Your task to perform on an android device: Open Chrome and go to settings Image 0: 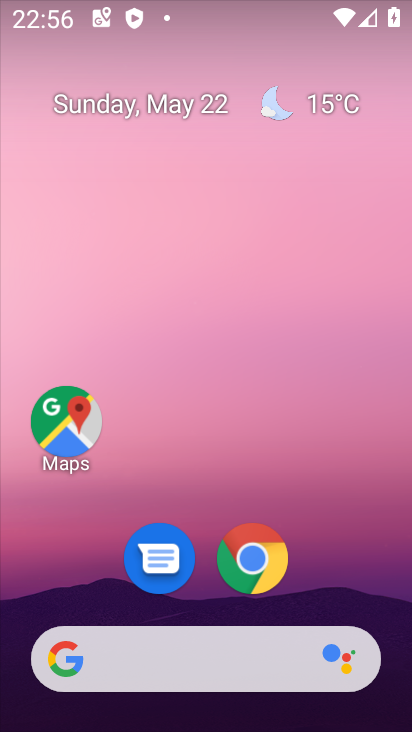
Step 0: click (248, 563)
Your task to perform on an android device: Open Chrome and go to settings Image 1: 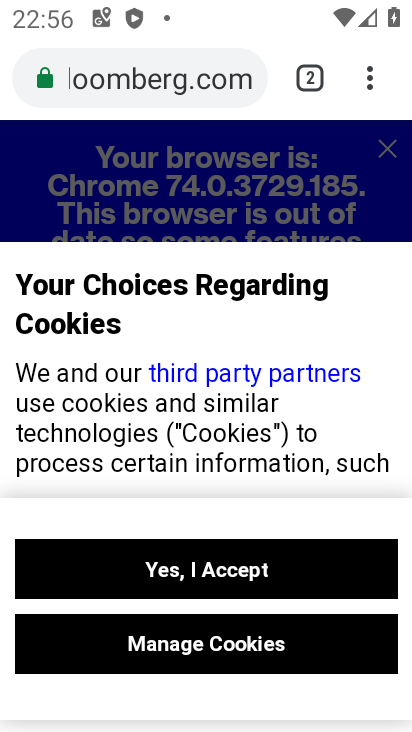
Step 1: click (372, 77)
Your task to perform on an android device: Open Chrome and go to settings Image 2: 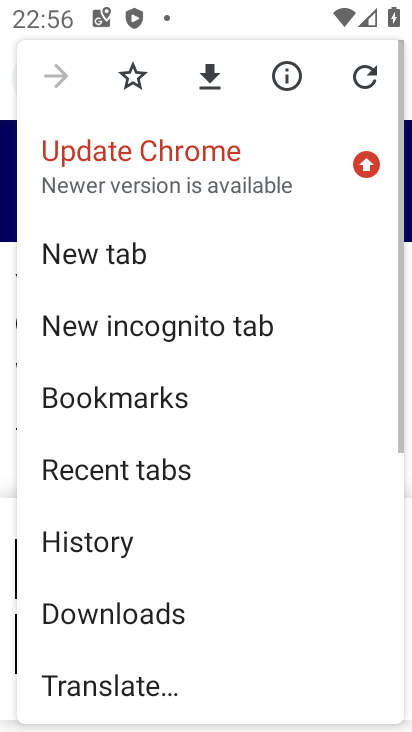
Step 2: drag from (206, 524) to (229, 172)
Your task to perform on an android device: Open Chrome and go to settings Image 3: 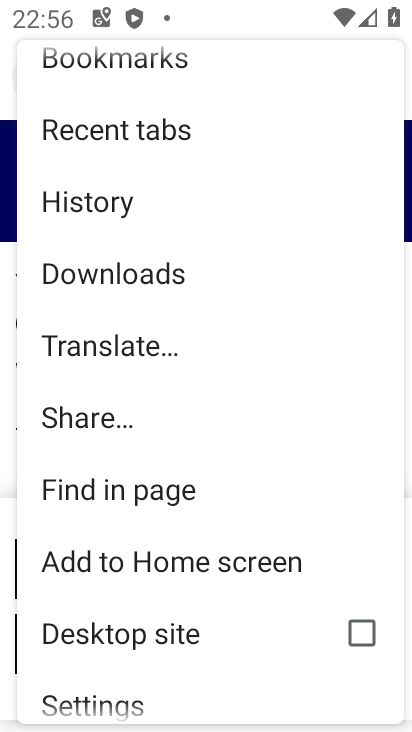
Step 3: drag from (189, 465) to (208, 176)
Your task to perform on an android device: Open Chrome and go to settings Image 4: 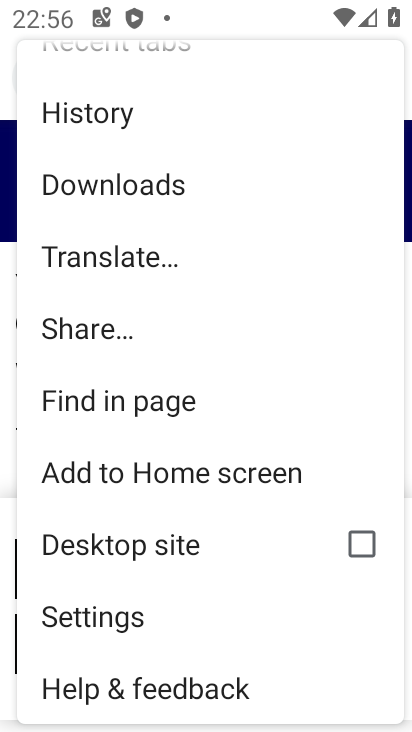
Step 4: click (102, 625)
Your task to perform on an android device: Open Chrome and go to settings Image 5: 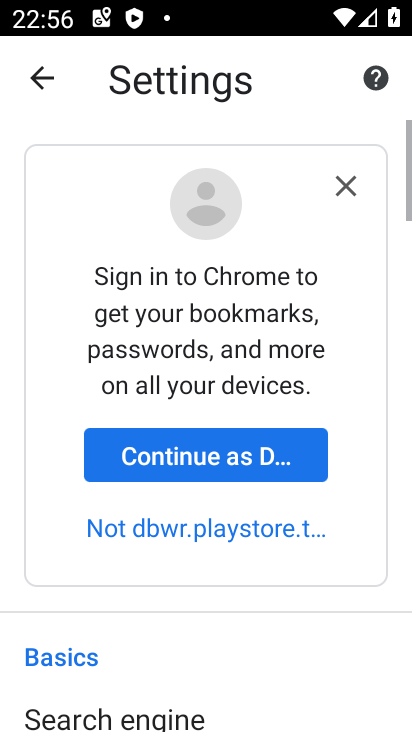
Step 5: task complete